Your task to perform on an android device: open device folders in google photos Image 0: 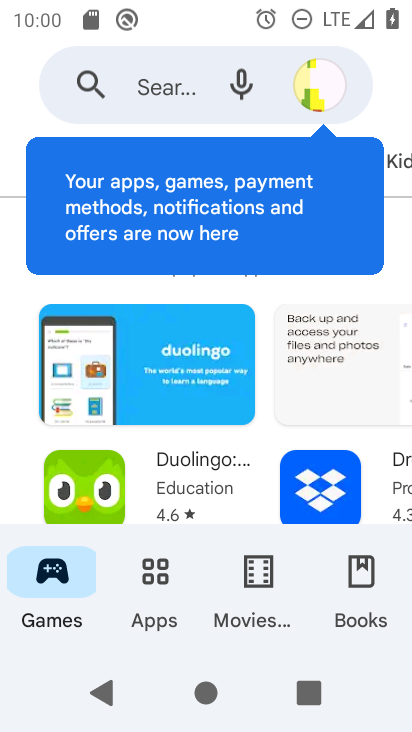
Step 0: click (253, 260)
Your task to perform on an android device: open device folders in google photos Image 1: 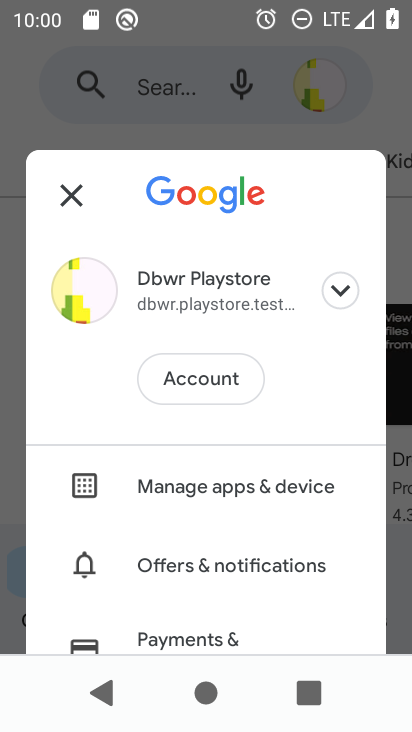
Step 1: press home button
Your task to perform on an android device: open device folders in google photos Image 2: 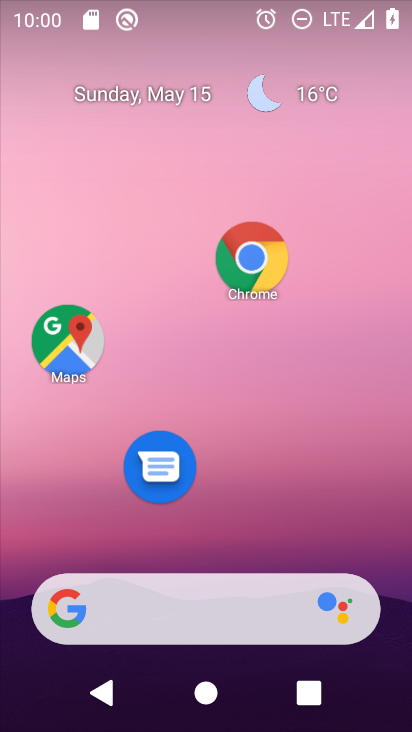
Step 2: drag from (224, 562) to (217, 118)
Your task to perform on an android device: open device folders in google photos Image 3: 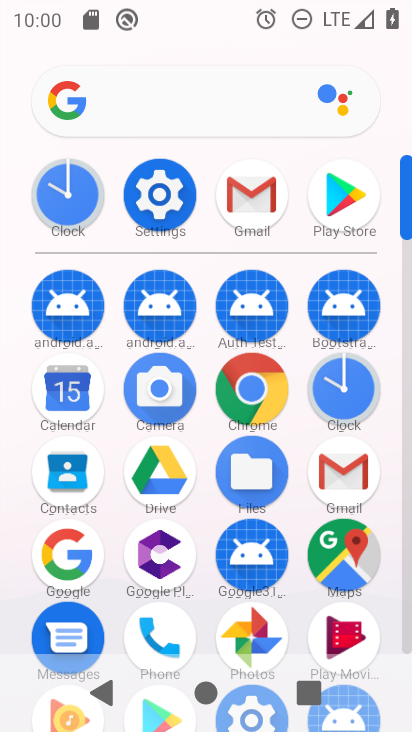
Step 3: click (260, 611)
Your task to perform on an android device: open device folders in google photos Image 4: 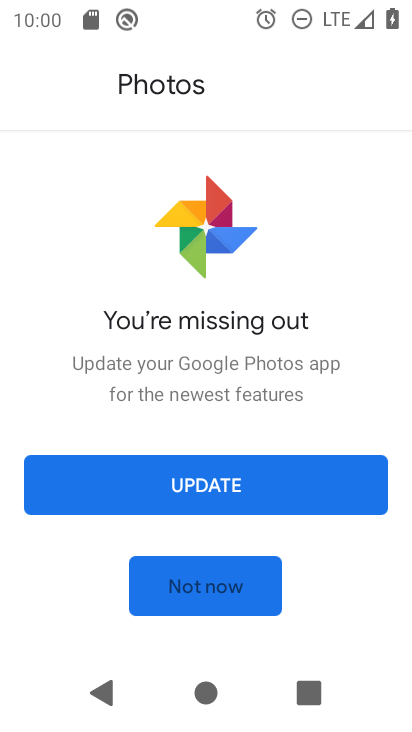
Step 4: click (244, 600)
Your task to perform on an android device: open device folders in google photos Image 5: 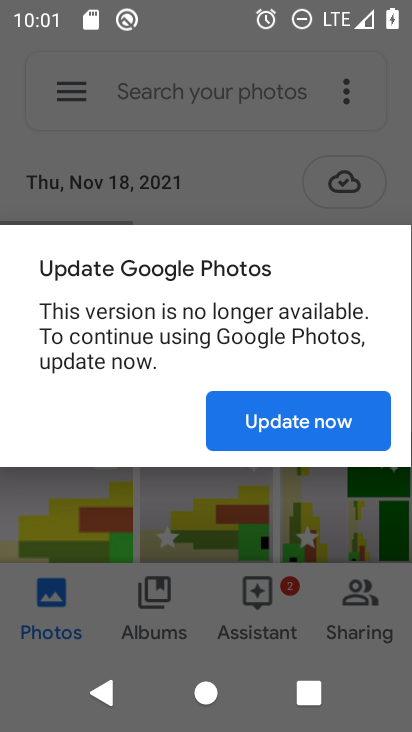
Step 5: click (249, 415)
Your task to perform on an android device: open device folders in google photos Image 6: 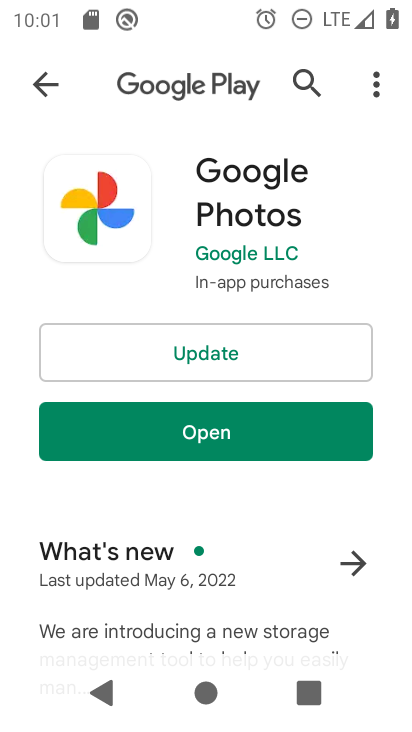
Step 6: click (249, 415)
Your task to perform on an android device: open device folders in google photos Image 7: 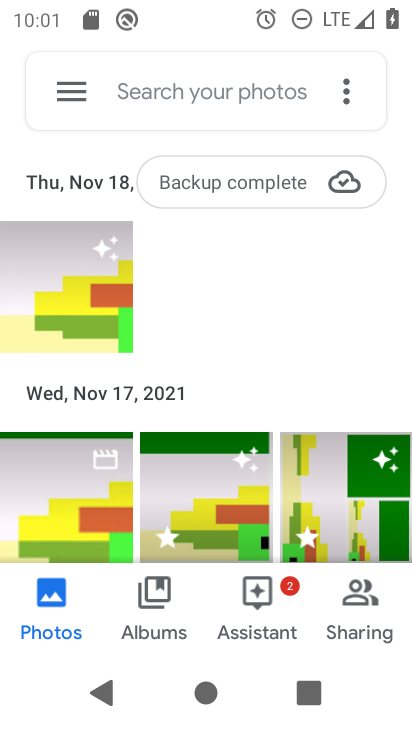
Step 7: click (72, 95)
Your task to perform on an android device: open device folders in google photos Image 8: 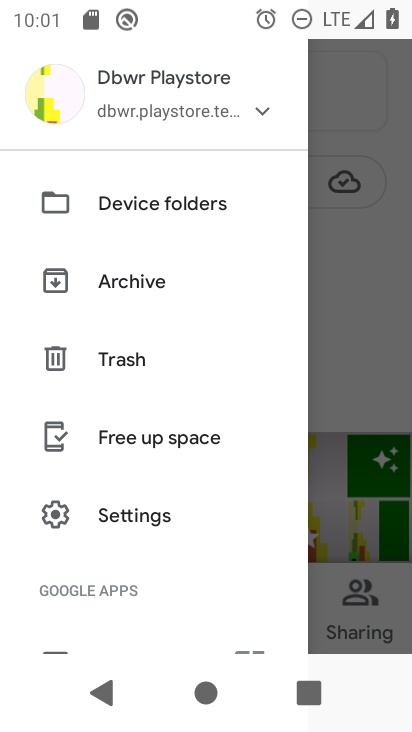
Step 8: click (160, 213)
Your task to perform on an android device: open device folders in google photos Image 9: 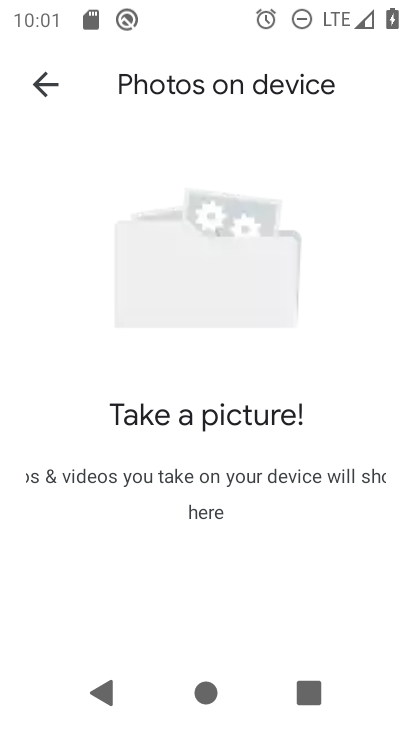
Step 9: task complete